Your task to perform on an android device: toggle translation in the chrome app Image 0: 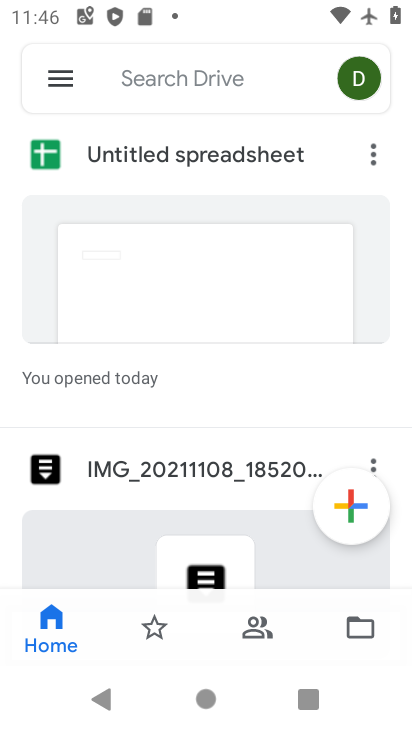
Step 0: press home button
Your task to perform on an android device: toggle translation in the chrome app Image 1: 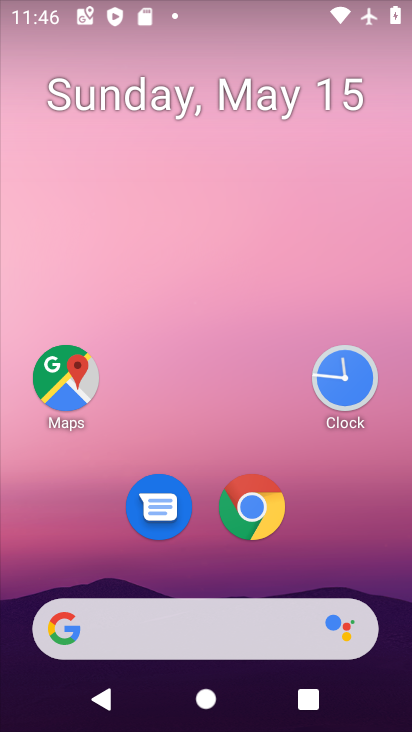
Step 1: click (268, 520)
Your task to perform on an android device: toggle translation in the chrome app Image 2: 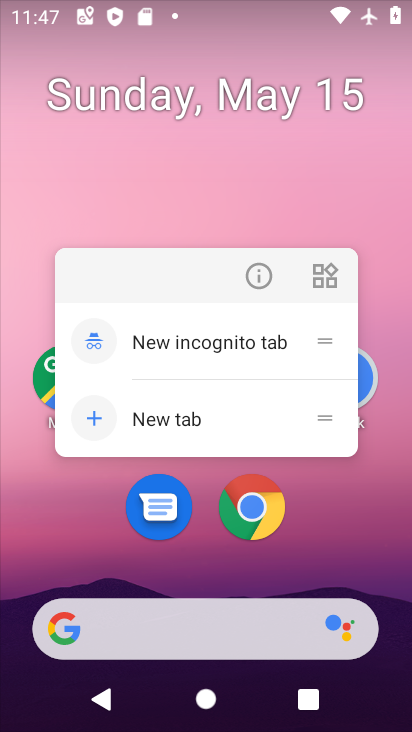
Step 2: click (257, 520)
Your task to perform on an android device: toggle translation in the chrome app Image 3: 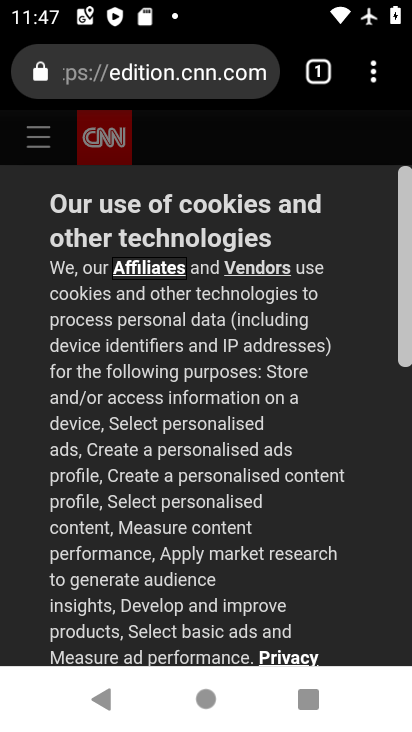
Step 3: drag from (379, 76) to (243, 499)
Your task to perform on an android device: toggle translation in the chrome app Image 4: 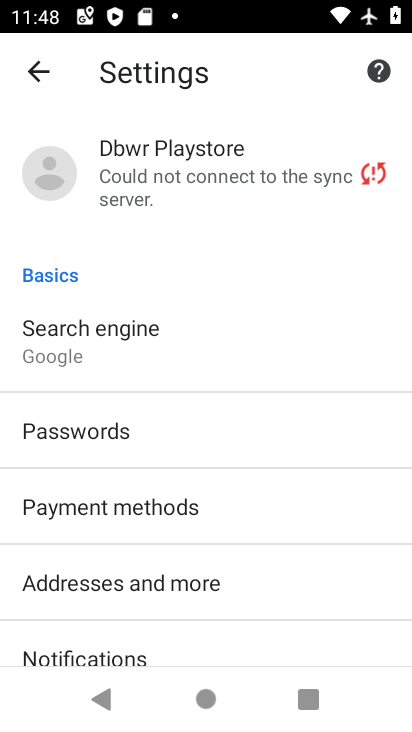
Step 4: drag from (196, 669) to (273, 207)
Your task to perform on an android device: toggle translation in the chrome app Image 5: 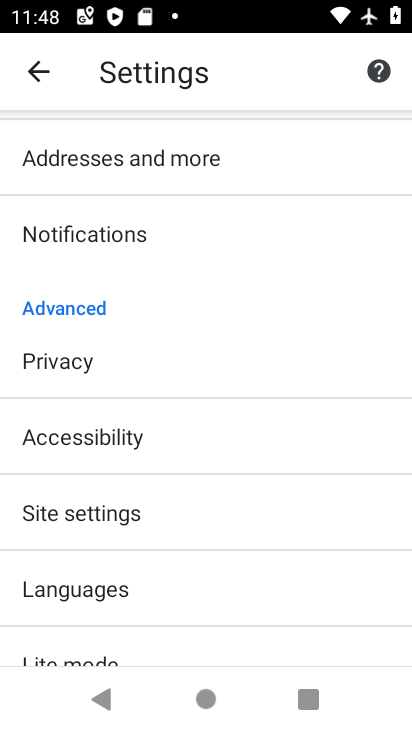
Step 5: drag from (152, 529) to (172, 181)
Your task to perform on an android device: toggle translation in the chrome app Image 6: 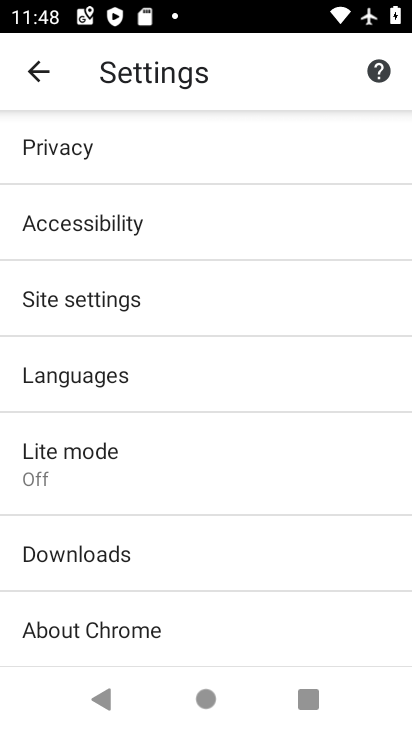
Step 6: drag from (154, 569) to (162, 459)
Your task to perform on an android device: toggle translation in the chrome app Image 7: 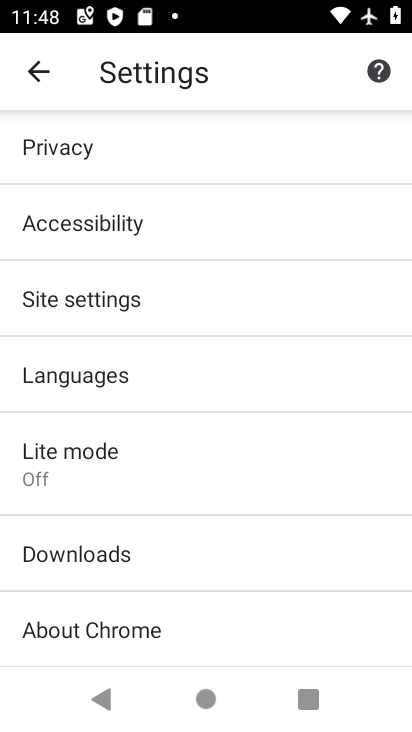
Step 7: click (132, 377)
Your task to perform on an android device: toggle translation in the chrome app Image 8: 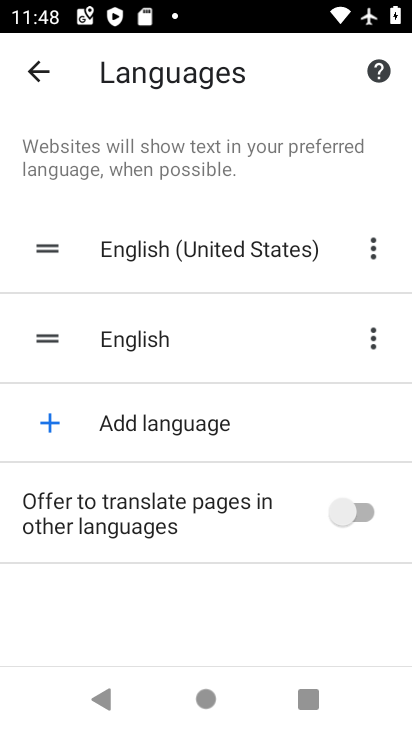
Step 8: click (356, 515)
Your task to perform on an android device: toggle translation in the chrome app Image 9: 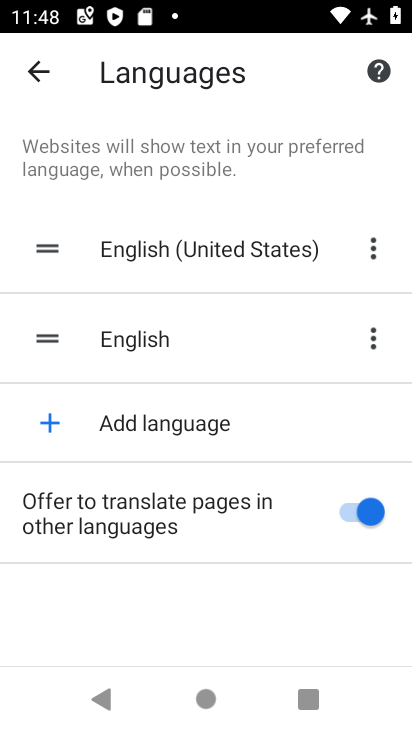
Step 9: task complete